Your task to perform on an android device: Go to Yahoo.com Image 0: 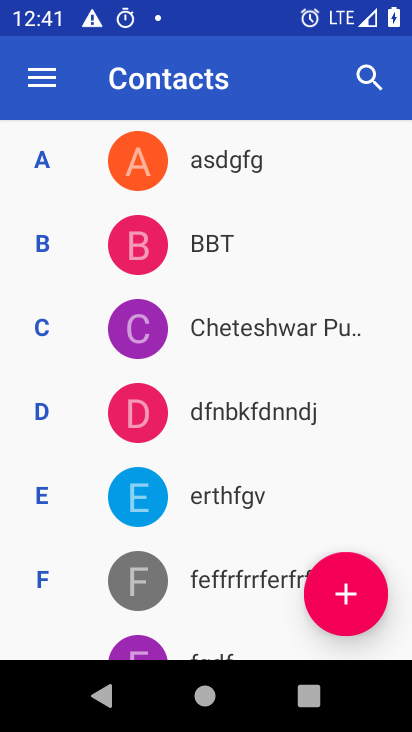
Step 0: press back button
Your task to perform on an android device: Go to Yahoo.com Image 1: 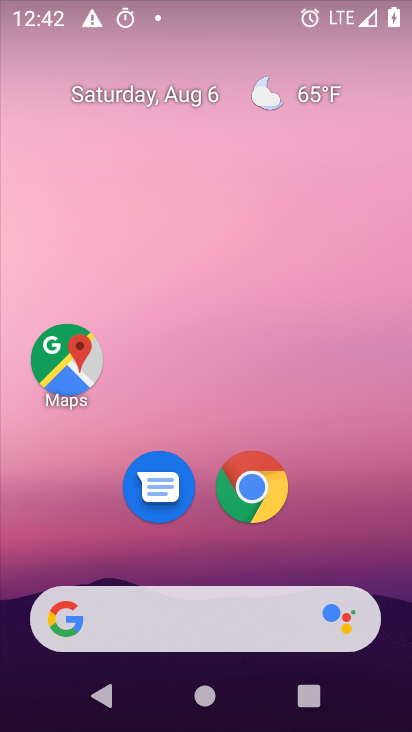
Step 1: click (264, 476)
Your task to perform on an android device: Go to Yahoo.com Image 2: 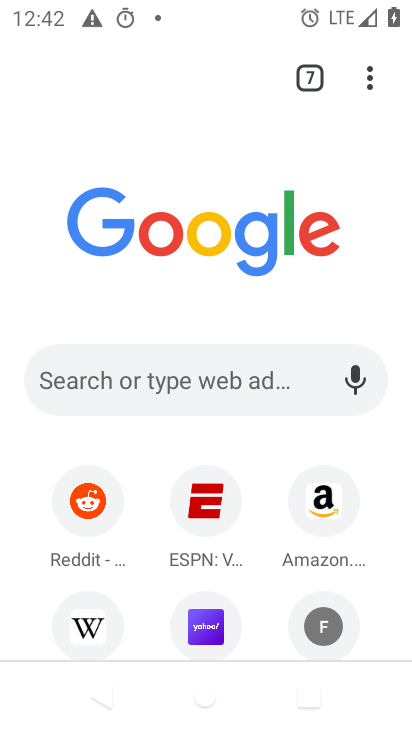
Step 2: drag from (179, 601) to (228, 293)
Your task to perform on an android device: Go to Yahoo.com Image 3: 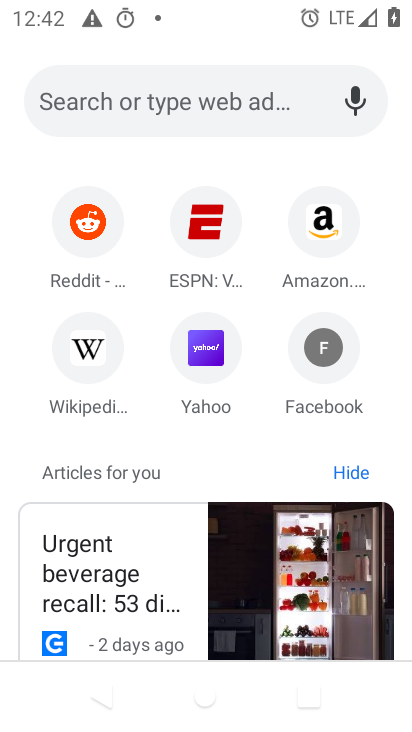
Step 3: click (208, 357)
Your task to perform on an android device: Go to Yahoo.com Image 4: 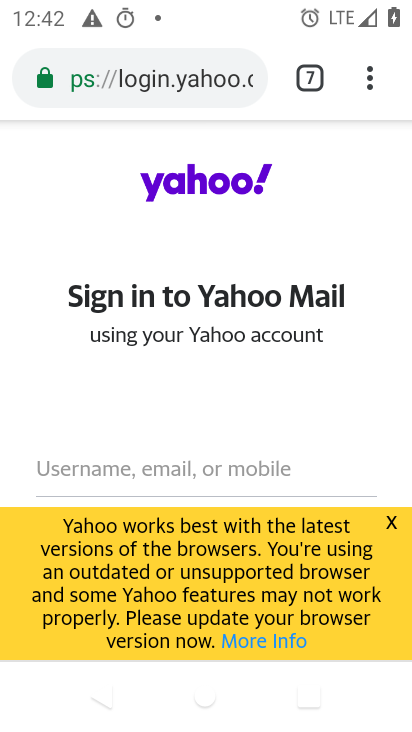
Step 4: task complete